Your task to perform on an android device: Open Wikipedia Image 0: 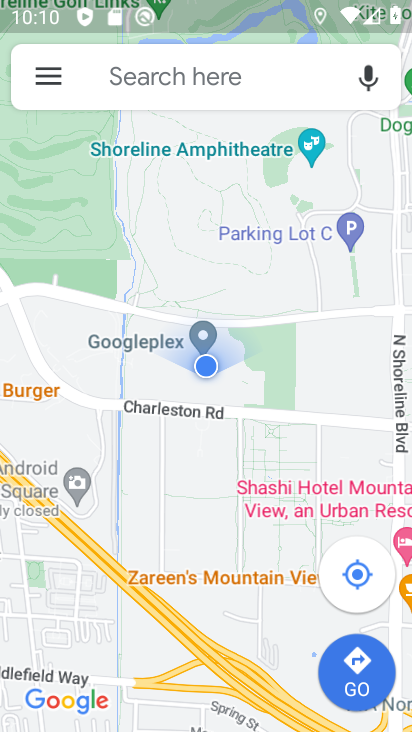
Step 0: press home button
Your task to perform on an android device: Open Wikipedia Image 1: 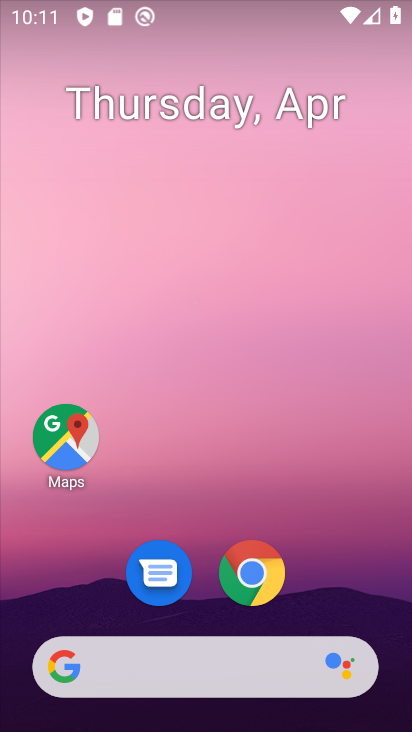
Step 1: click (243, 589)
Your task to perform on an android device: Open Wikipedia Image 2: 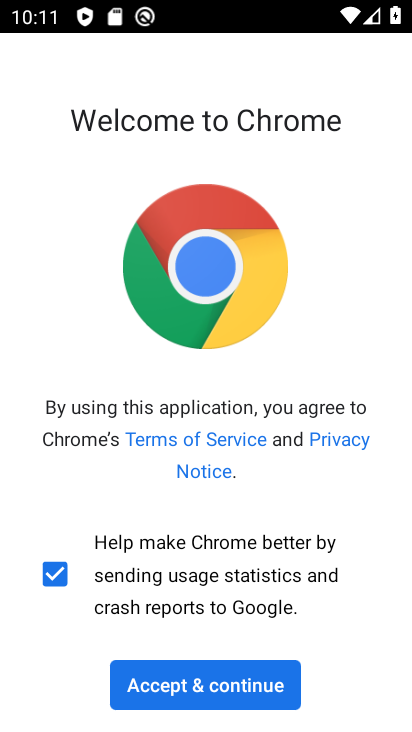
Step 2: click (244, 687)
Your task to perform on an android device: Open Wikipedia Image 3: 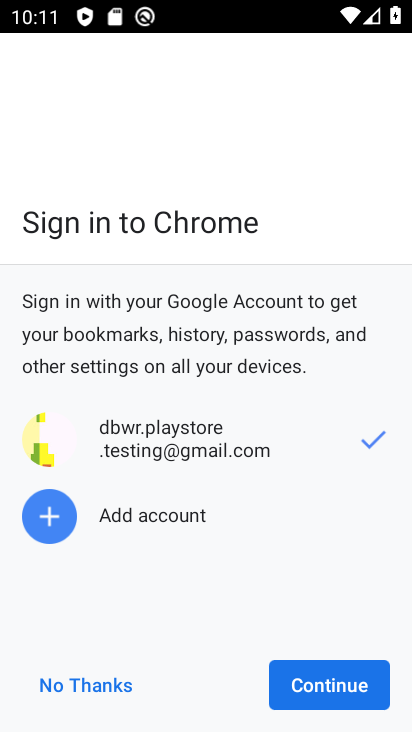
Step 3: click (304, 688)
Your task to perform on an android device: Open Wikipedia Image 4: 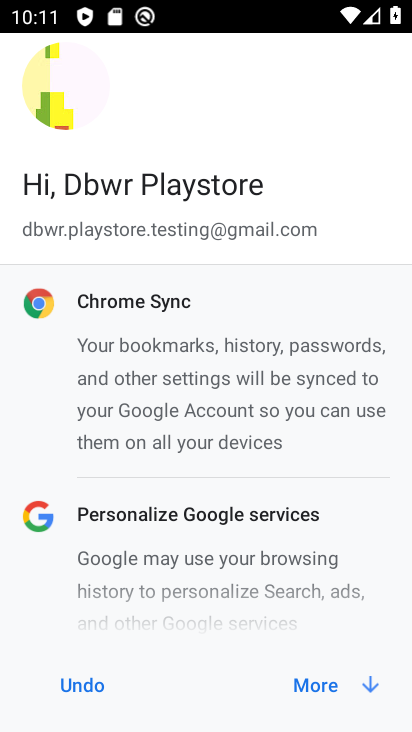
Step 4: click (304, 688)
Your task to perform on an android device: Open Wikipedia Image 5: 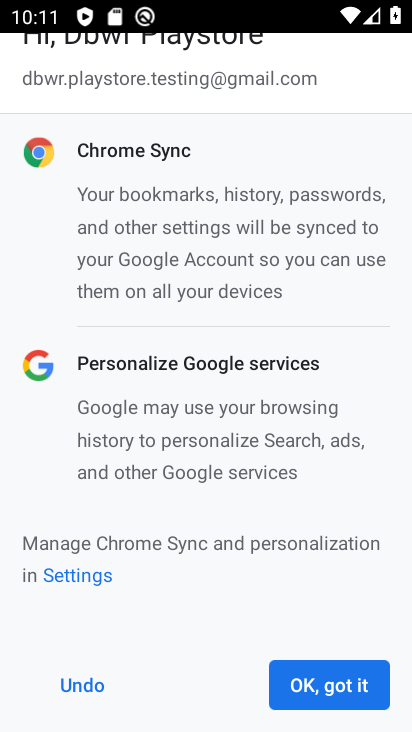
Step 5: click (304, 688)
Your task to perform on an android device: Open Wikipedia Image 6: 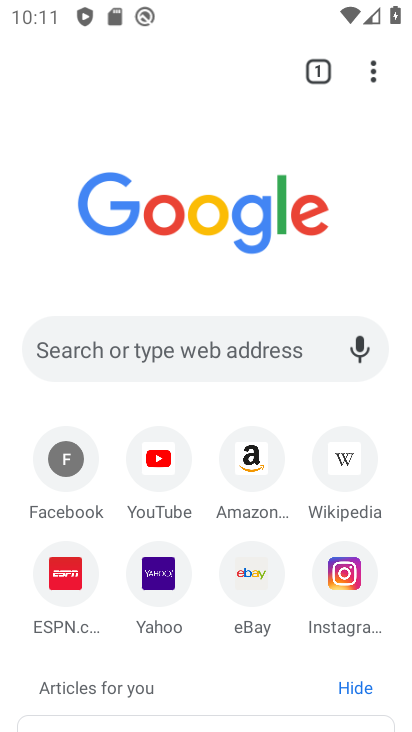
Step 6: click (351, 457)
Your task to perform on an android device: Open Wikipedia Image 7: 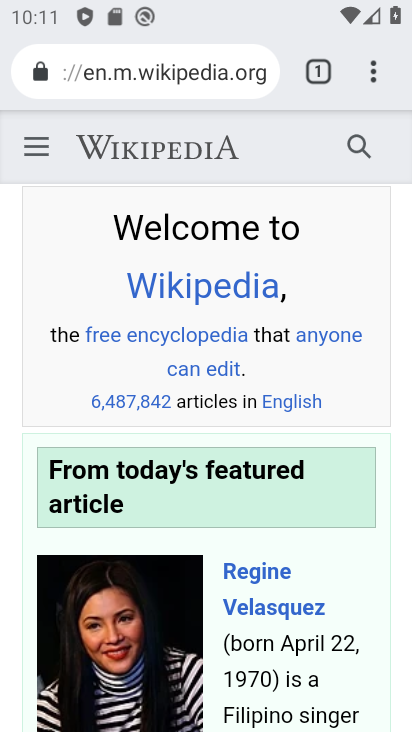
Step 7: task complete